Your task to perform on an android device: turn off notifications in google photos Image 0: 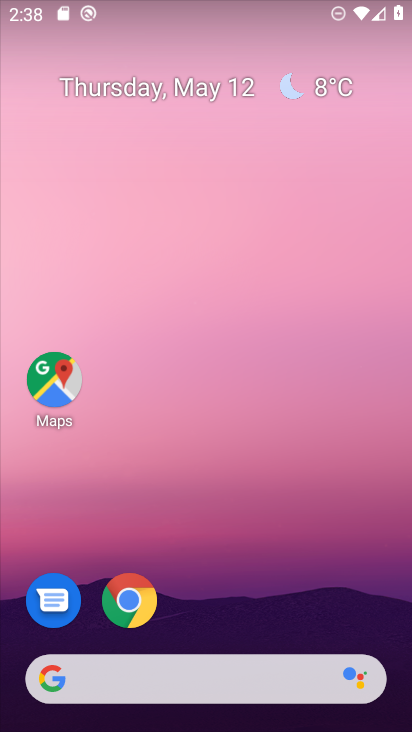
Step 0: drag from (182, 721) to (232, 100)
Your task to perform on an android device: turn off notifications in google photos Image 1: 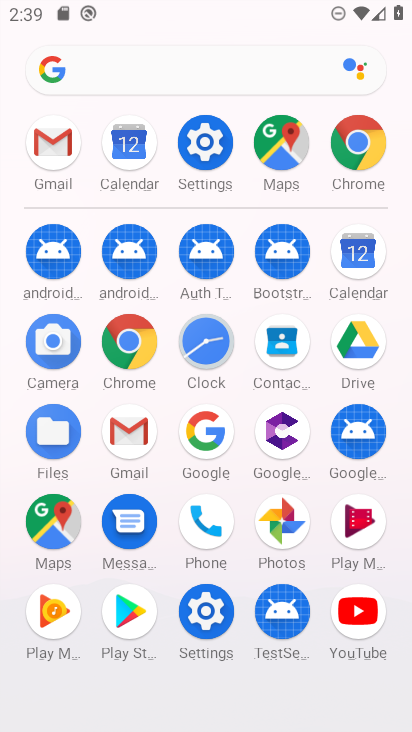
Step 1: click (279, 511)
Your task to perform on an android device: turn off notifications in google photos Image 2: 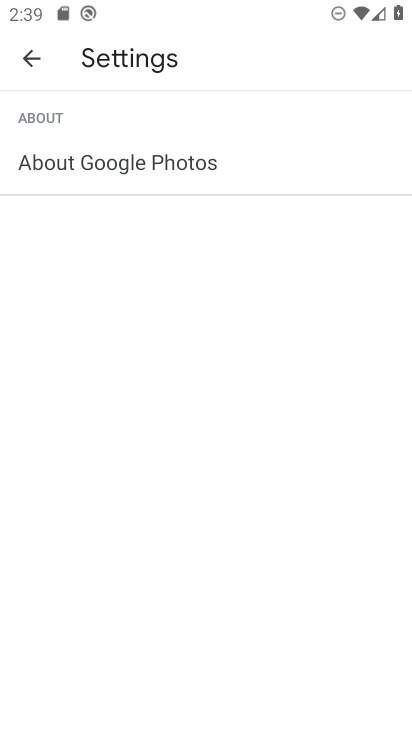
Step 2: click (29, 46)
Your task to perform on an android device: turn off notifications in google photos Image 3: 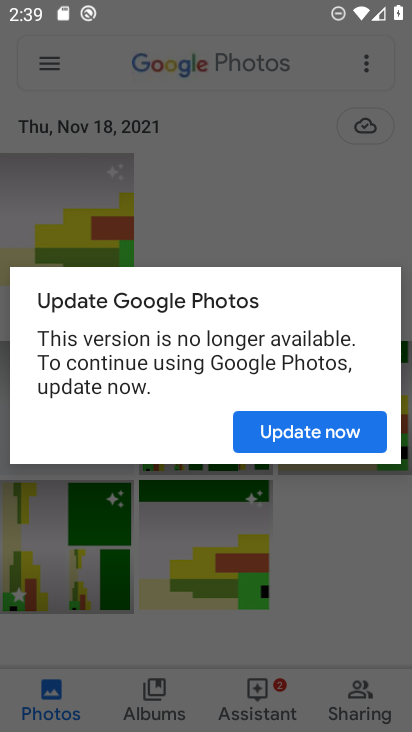
Step 3: click (54, 71)
Your task to perform on an android device: turn off notifications in google photos Image 4: 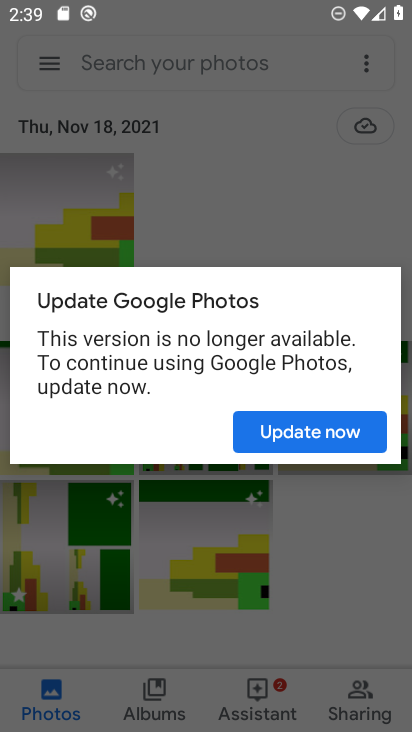
Step 4: task complete